Your task to perform on an android device: Open the contacts Image 0: 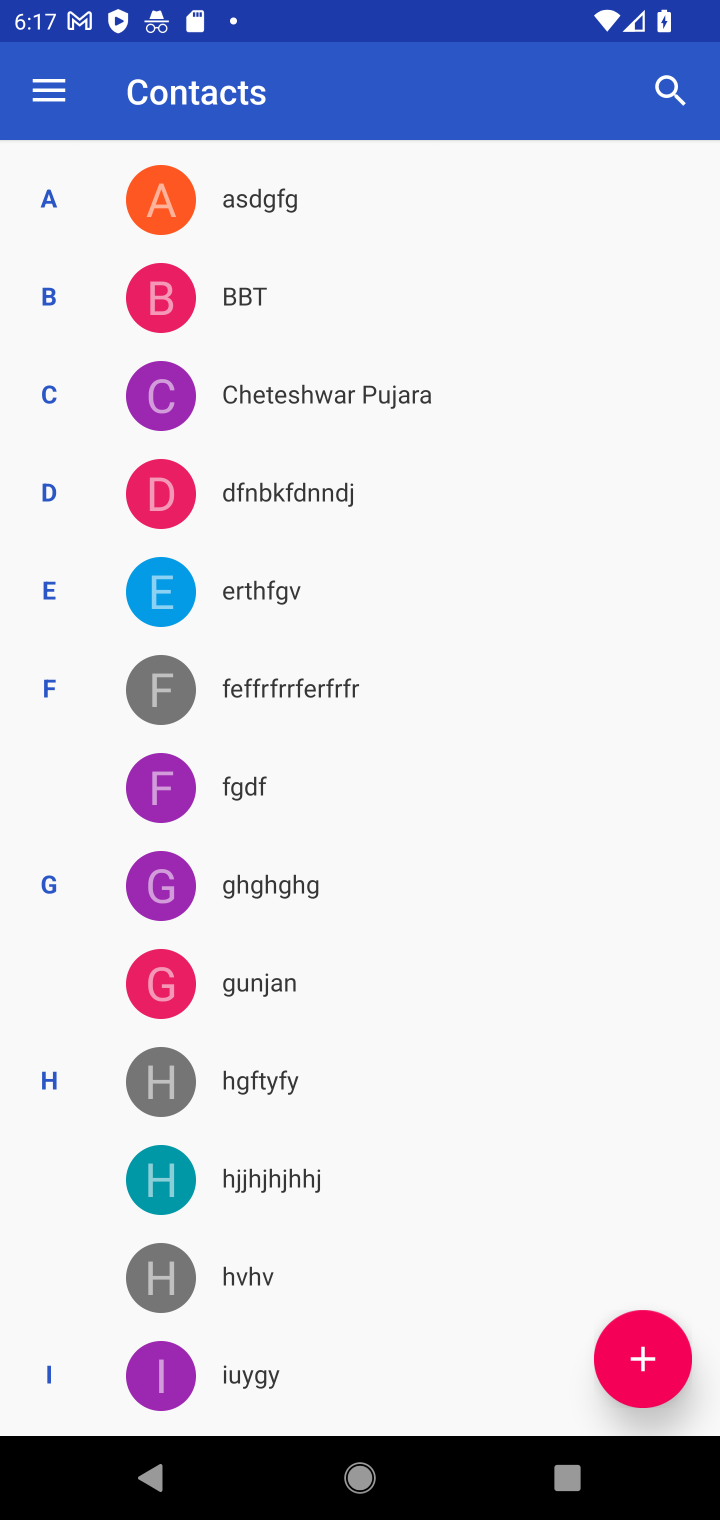
Step 0: press home button
Your task to perform on an android device: Open the contacts Image 1: 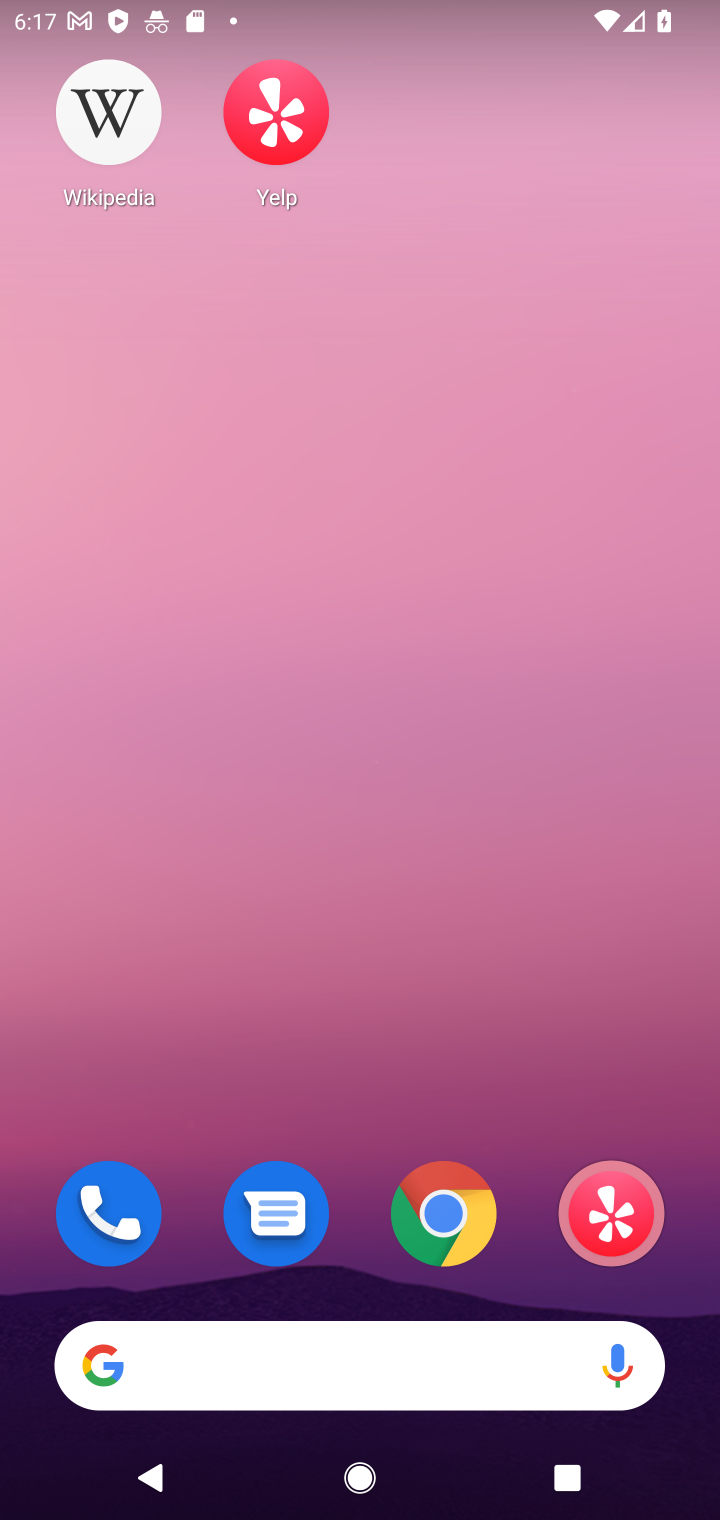
Step 1: drag from (274, 1281) to (372, 193)
Your task to perform on an android device: Open the contacts Image 2: 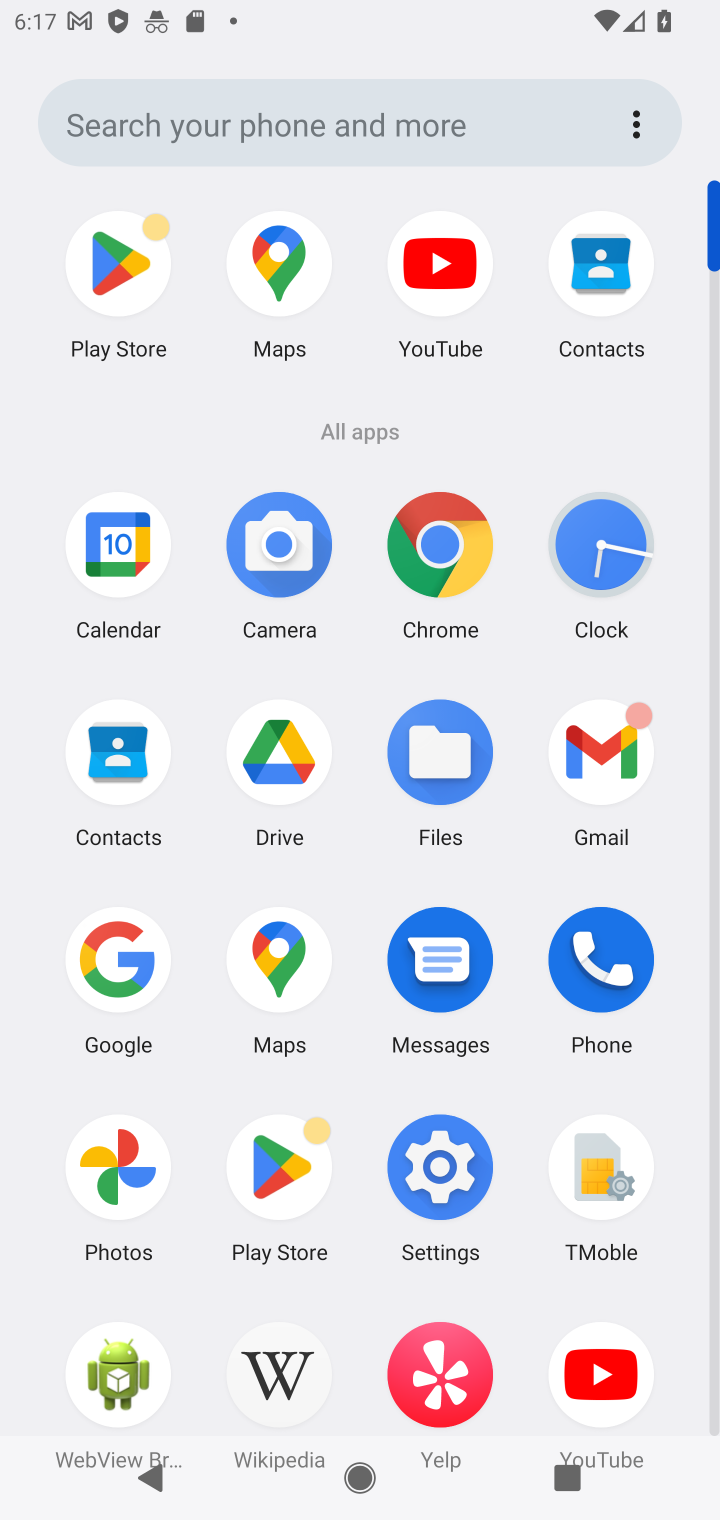
Step 2: click (103, 803)
Your task to perform on an android device: Open the contacts Image 3: 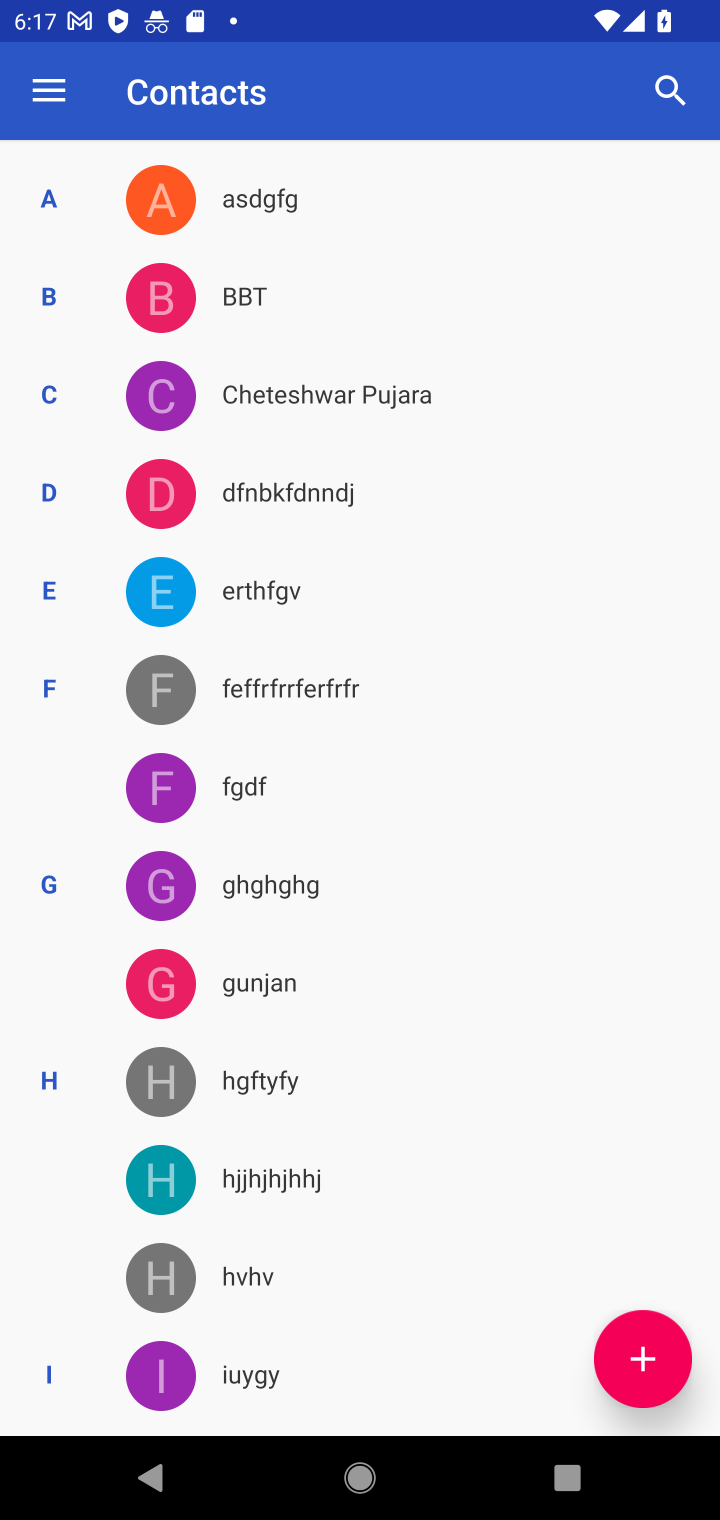
Step 3: task complete